Your task to perform on an android device: Open Android settings Image 0: 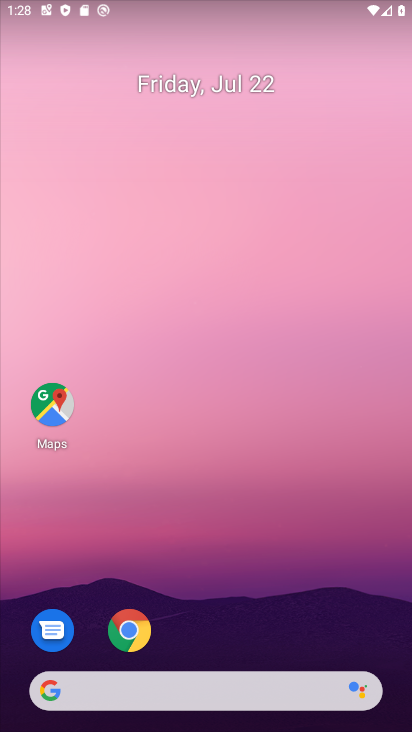
Step 0: drag from (161, 310) to (174, 169)
Your task to perform on an android device: Open Android settings Image 1: 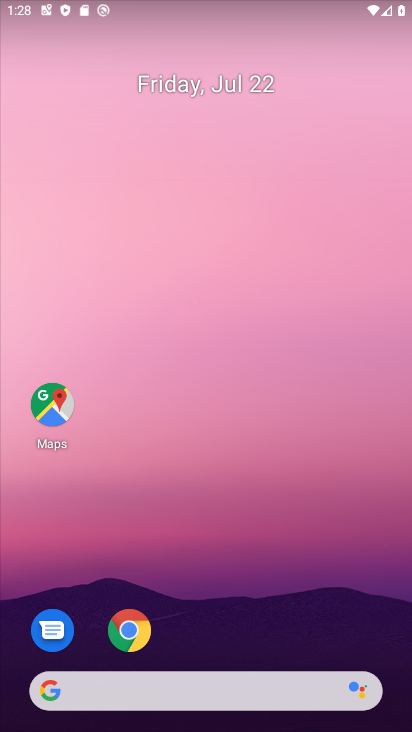
Step 1: drag from (211, 548) to (133, 32)
Your task to perform on an android device: Open Android settings Image 2: 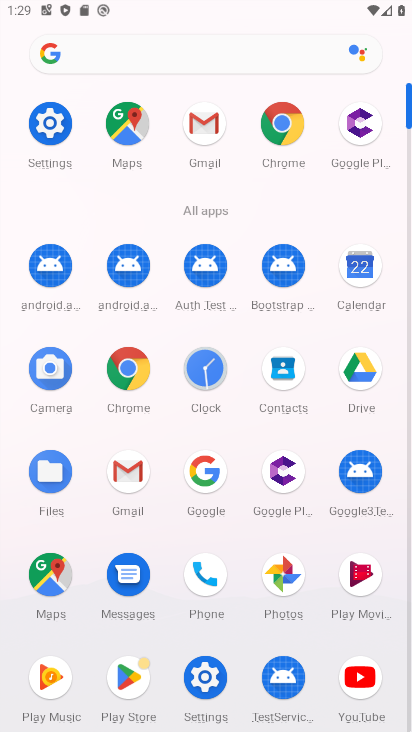
Step 2: click (49, 128)
Your task to perform on an android device: Open Android settings Image 3: 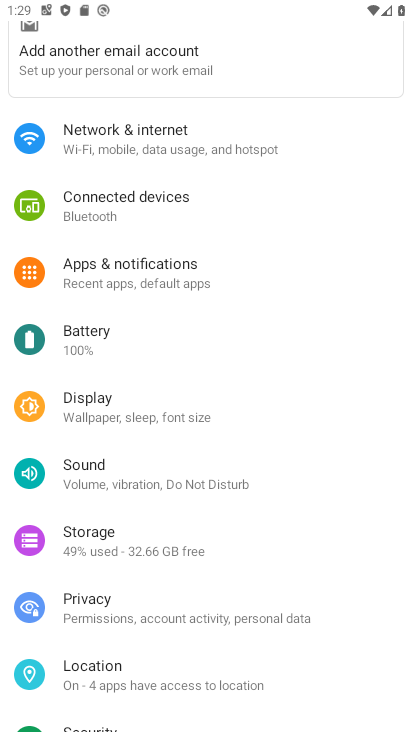
Step 3: drag from (142, 486) to (147, 393)
Your task to perform on an android device: Open Android settings Image 4: 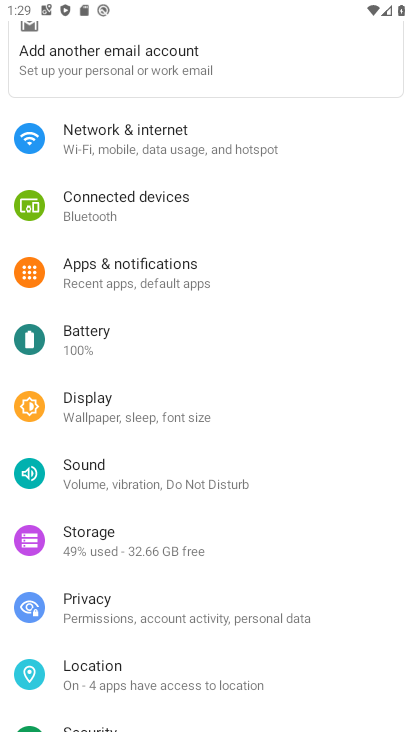
Step 4: drag from (78, 668) to (86, 247)
Your task to perform on an android device: Open Android settings Image 5: 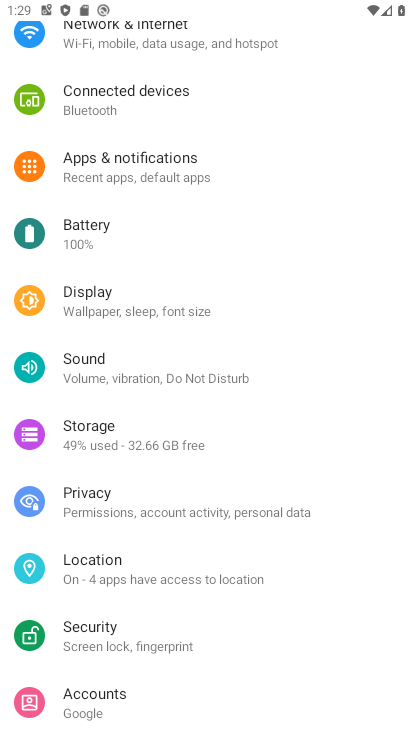
Step 5: drag from (98, 536) to (109, 345)
Your task to perform on an android device: Open Android settings Image 6: 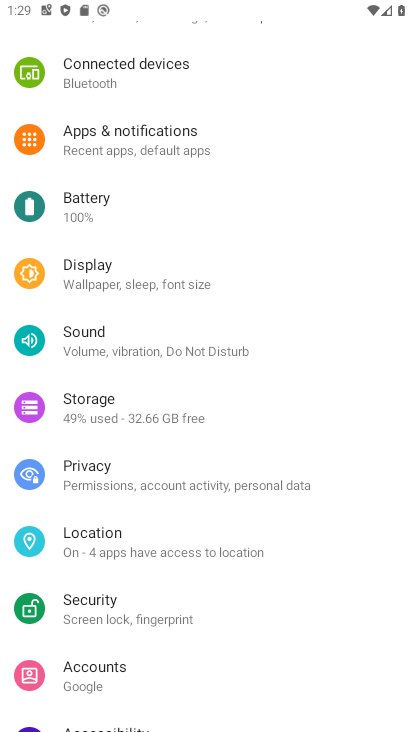
Step 6: drag from (124, 432) to (132, 281)
Your task to perform on an android device: Open Android settings Image 7: 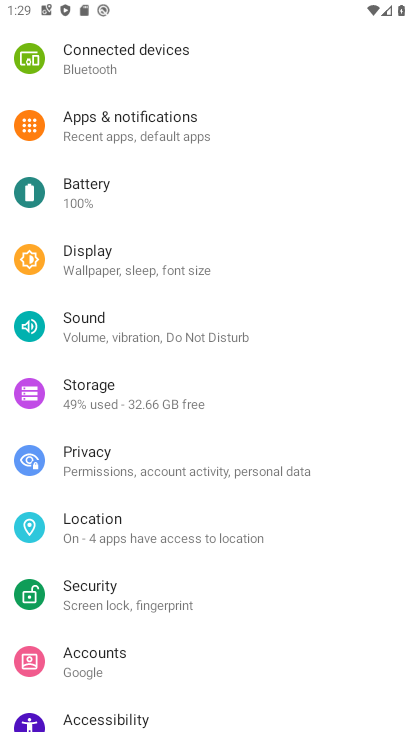
Step 7: drag from (144, 594) to (172, 240)
Your task to perform on an android device: Open Android settings Image 8: 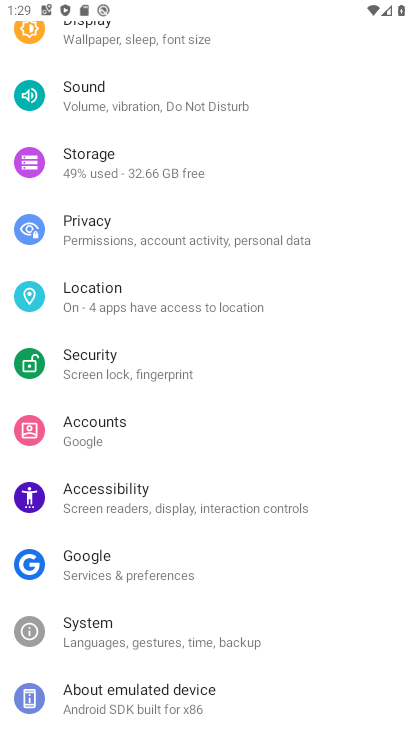
Step 8: click (149, 712)
Your task to perform on an android device: Open Android settings Image 9: 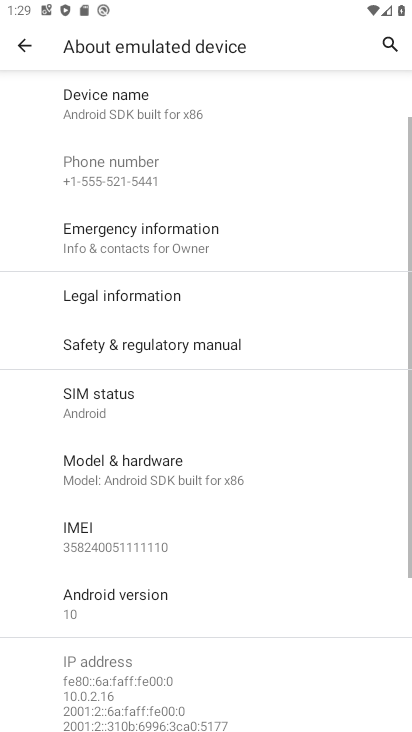
Step 9: task complete